Your task to perform on an android device: Open Chrome and go to settings Image 0: 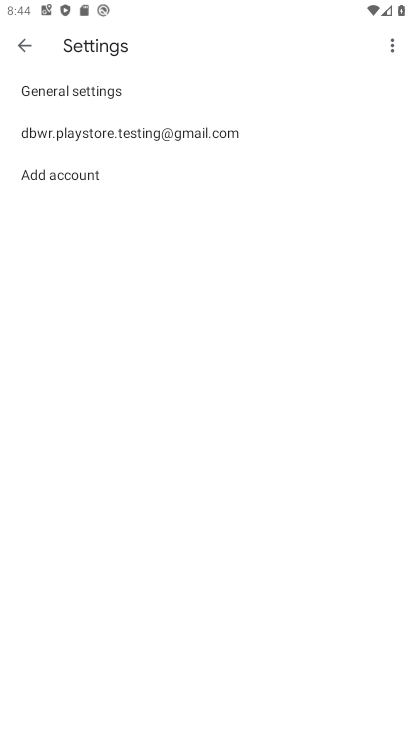
Step 0: press home button
Your task to perform on an android device: Open Chrome and go to settings Image 1: 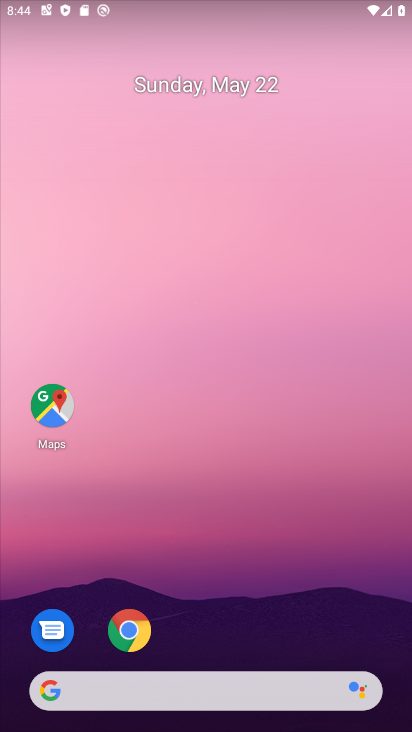
Step 1: click (128, 626)
Your task to perform on an android device: Open Chrome and go to settings Image 2: 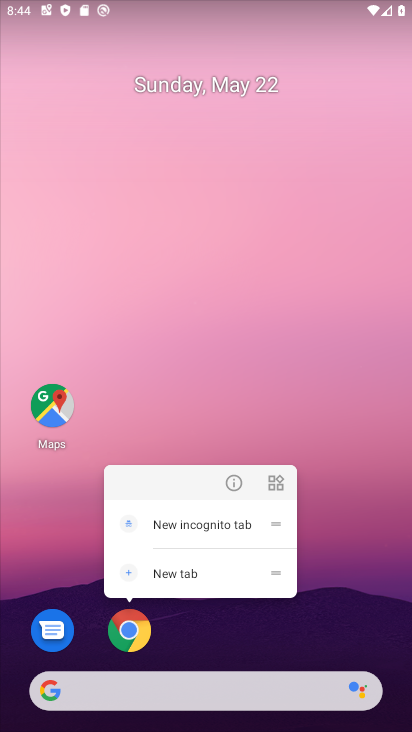
Step 2: click (128, 625)
Your task to perform on an android device: Open Chrome and go to settings Image 3: 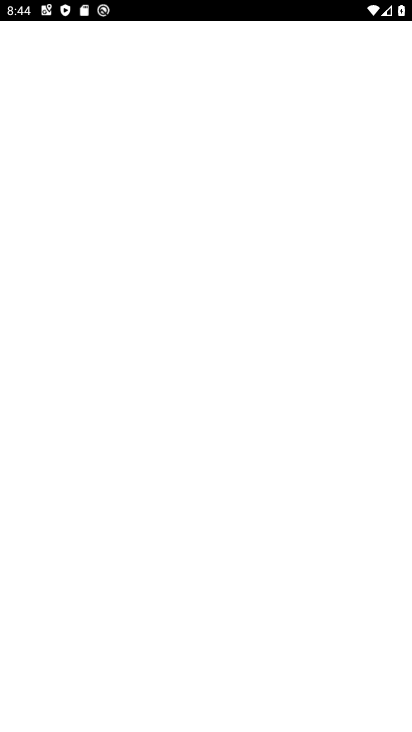
Step 3: click (128, 625)
Your task to perform on an android device: Open Chrome and go to settings Image 4: 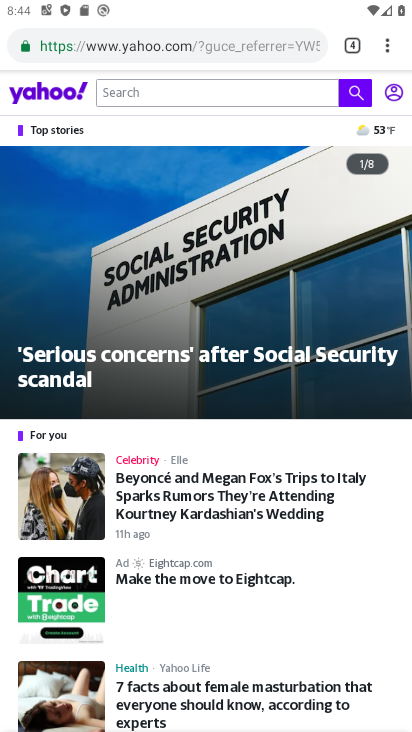
Step 4: click (395, 58)
Your task to perform on an android device: Open Chrome and go to settings Image 5: 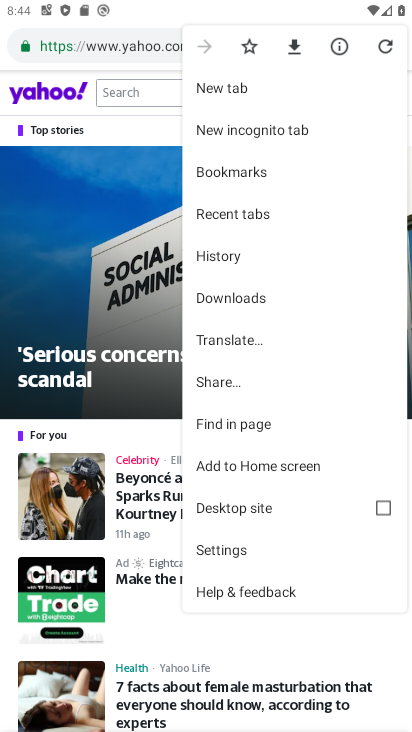
Step 5: click (239, 548)
Your task to perform on an android device: Open Chrome and go to settings Image 6: 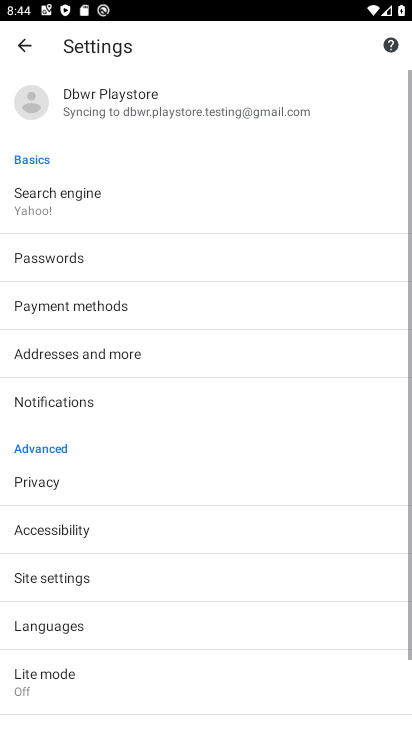
Step 6: task complete